Your task to perform on an android device: Show me the alarms in the clock app Image 0: 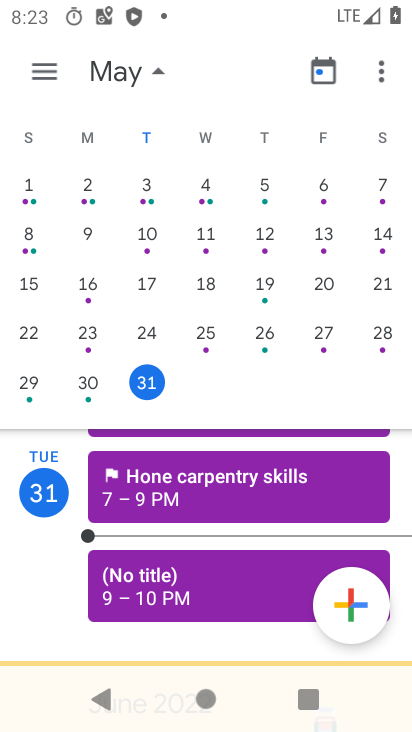
Step 0: press home button
Your task to perform on an android device: Show me the alarms in the clock app Image 1: 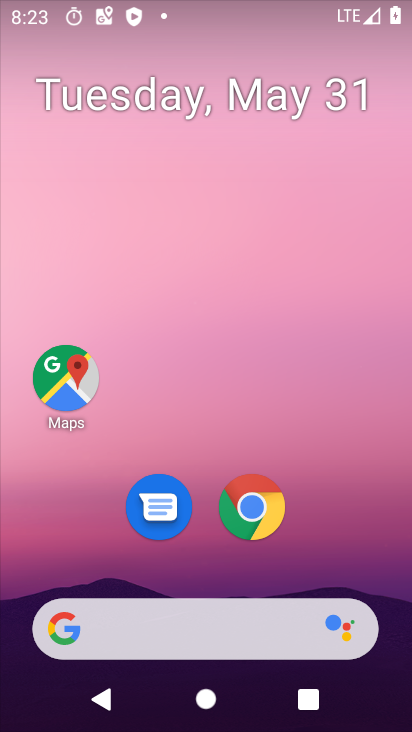
Step 1: drag from (39, 619) to (235, 252)
Your task to perform on an android device: Show me the alarms in the clock app Image 2: 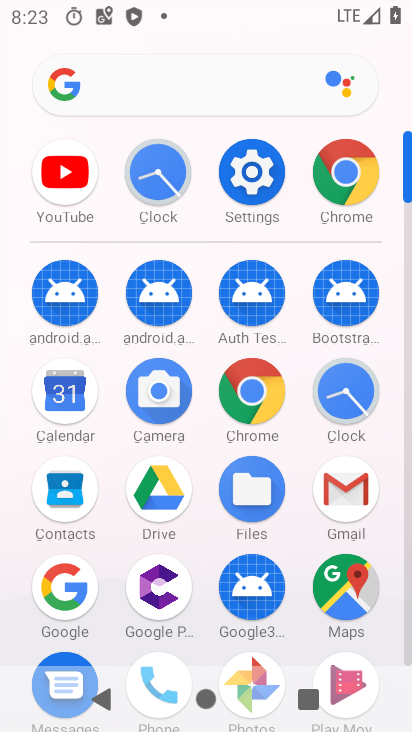
Step 2: click (167, 186)
Your task to perform on an android device: Show me the alarms in the clock app Image 3: 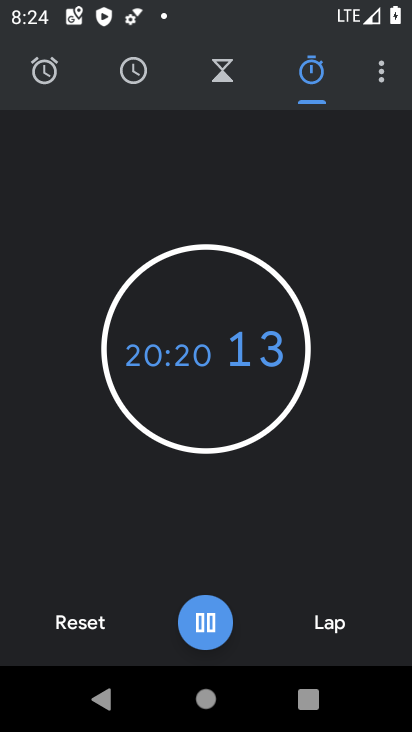
Step 3: click (50, 74)
Your task to perform on an android device: Show me the alarms in the clock app Image 4: 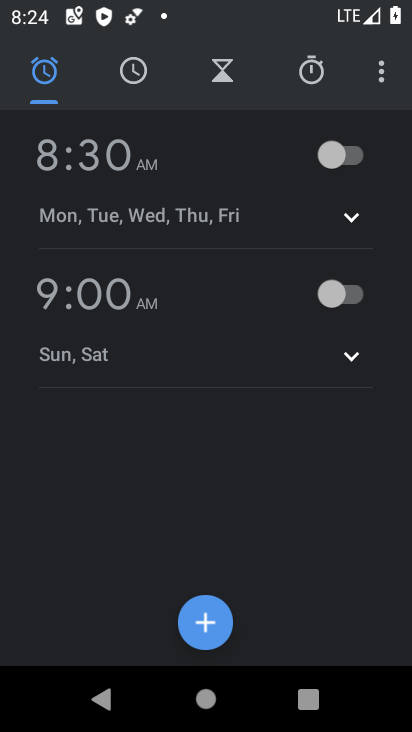
Step 4: task complete